Your task to perform on an android device: Go to privacy settings Image 0: 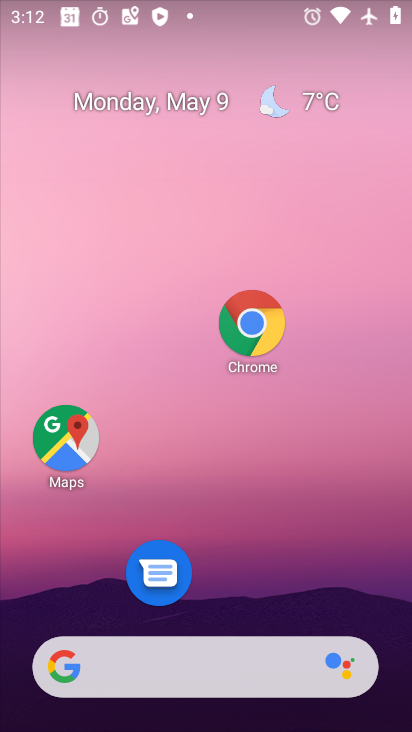
Step 0: drag from (195, 668) to (295, 250)
Your task to perform on an android device: Go to privacy settings Image 1: 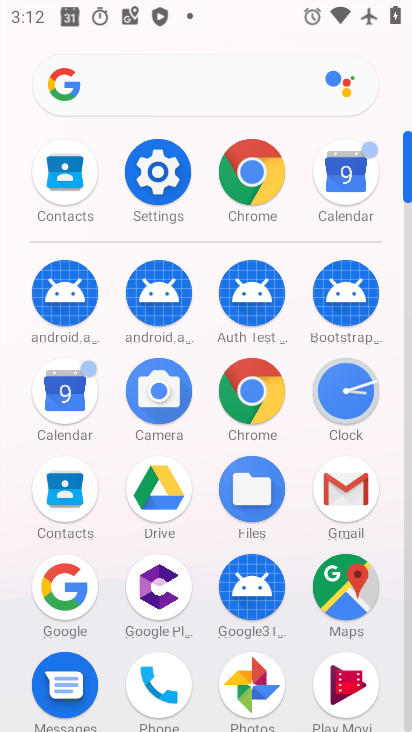
Step 1: click (159, 187)
Your task to perform on an android device: Go to privacy settings Image 2: 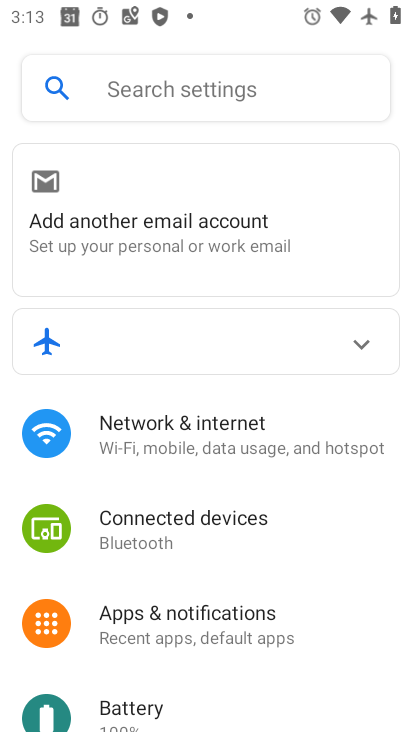
Step 2: drag from (173, 573) to (268, 288)
Your task to perform on an android device: Go to privacy settings Image 3: 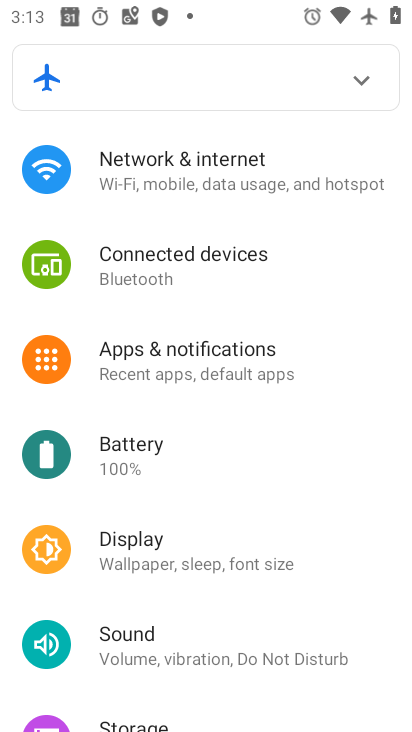
Step 3: drag from (189, 600) to (308, 252)
Your task to perform on an android device: Go to privacy settings Image 4: 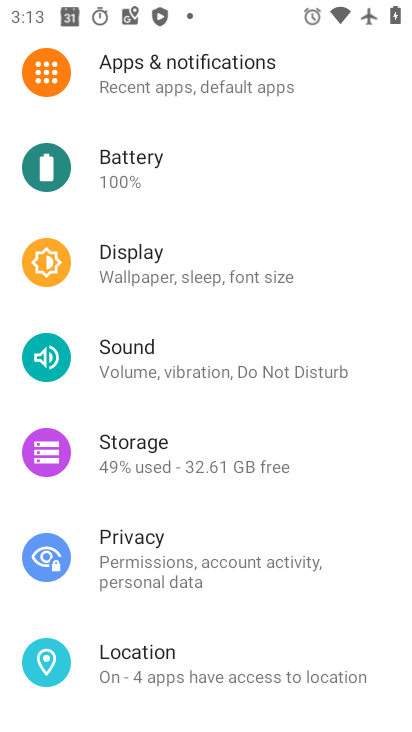
Step 4: click (147, 548)
Your task to perform on an android device: Go to privacy settings Image 5: 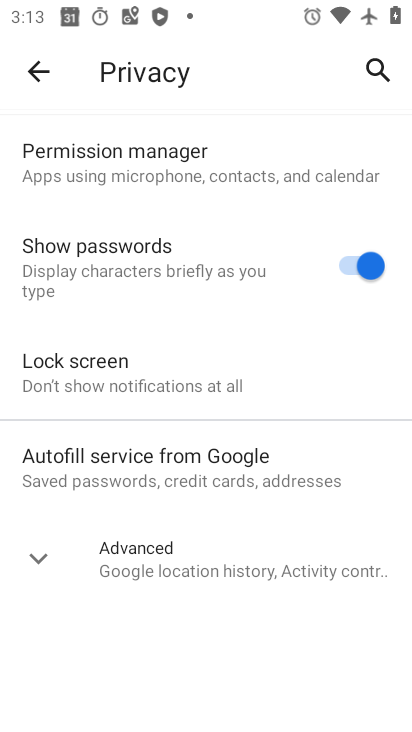
Step 5: task complete